Your task to perform on an android device: show emergency info Image 0: 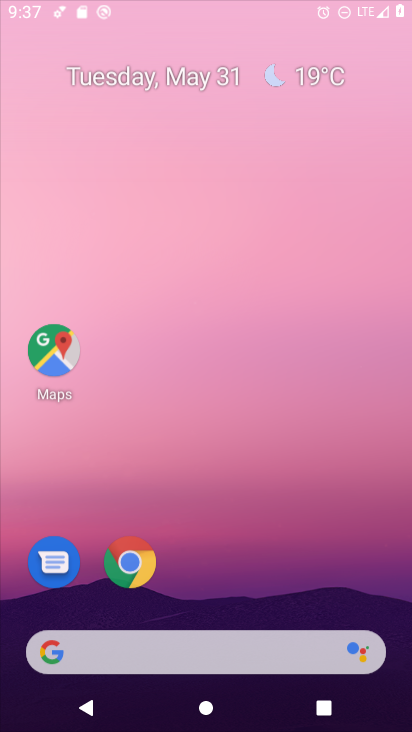
Step 0: drag from (233, 640) to (232, 282)
Your task to perform on an android device: show emergency info Image 1: 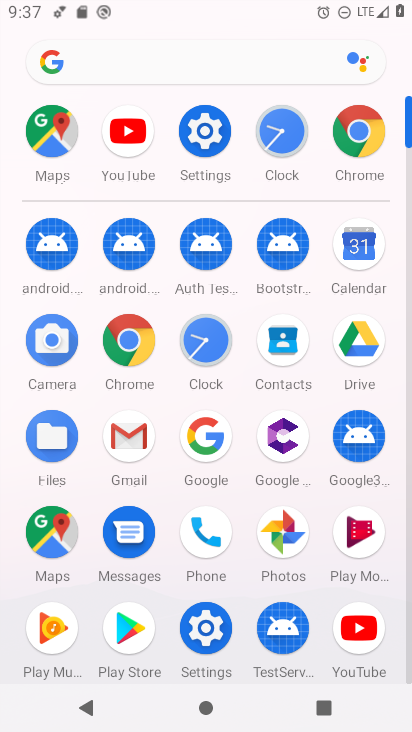
Step 1: click (203, 133)
Your task to perform on an android device: show emergency info Image 2: 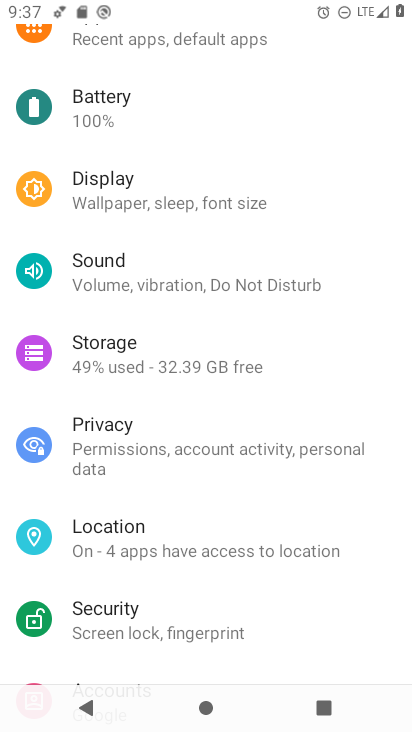
Step 2: drag from (218, 659) to (223, 378)
Your task to perform on an android device: show emergency info Image 3: 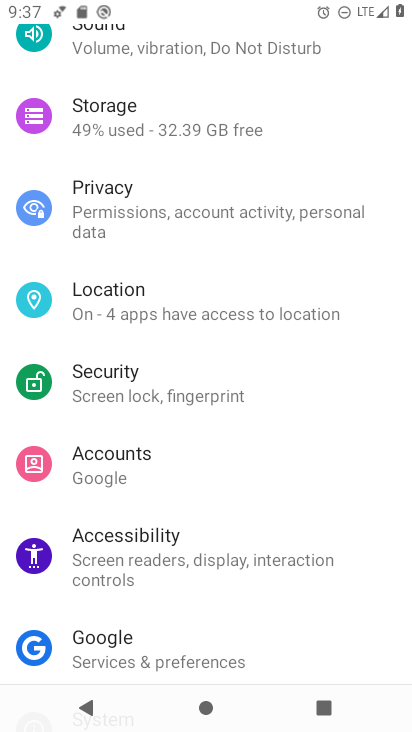
Step 3: click (161, 395)
Your task to perform on an android device: show emergency info Image 4: 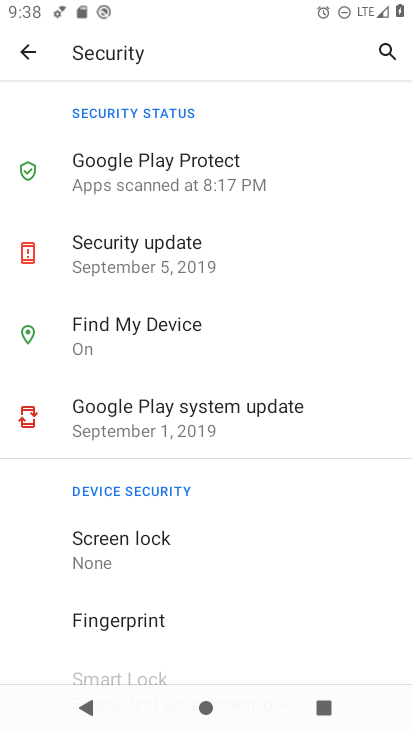
Step 4: press back button
Your task to perform on an android device: show emergency info Image 5: 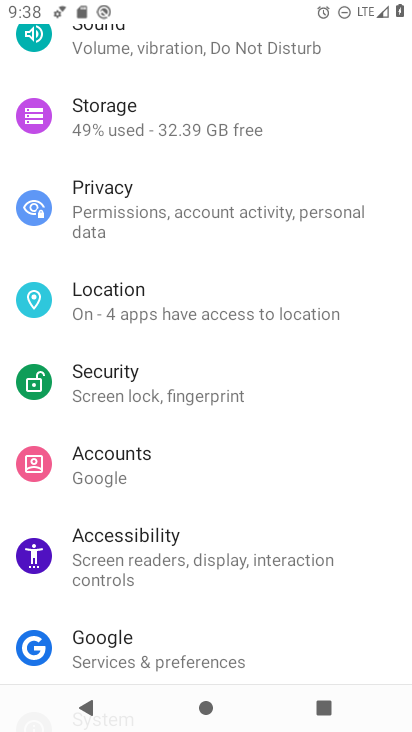
Step 5: drag from (222, 560) to (232, 297)
Your task to perform on an android device: show emergency info Image 6: 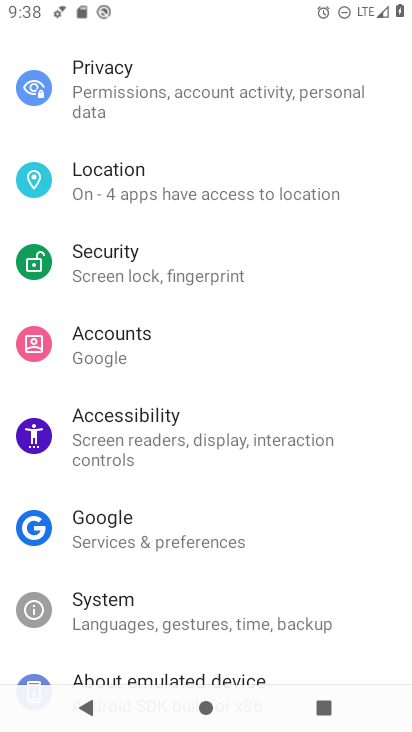
Step 6: click (204, 673)
Your task to perform on an android device: show emergency info Image 7: 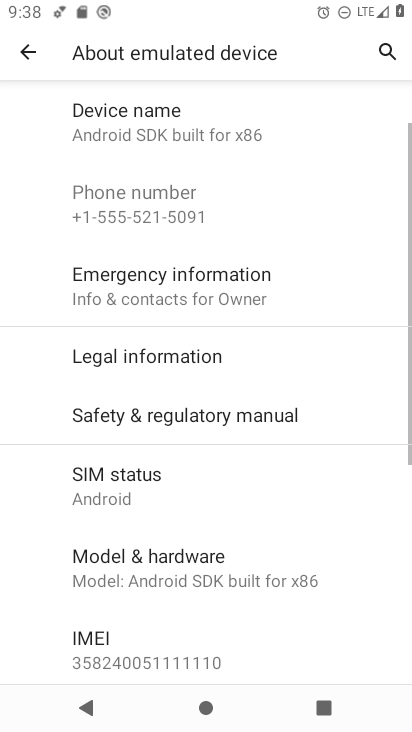
Step 7: click (132, 267)
Your task to perform on an android device: show emergency info Image 8: 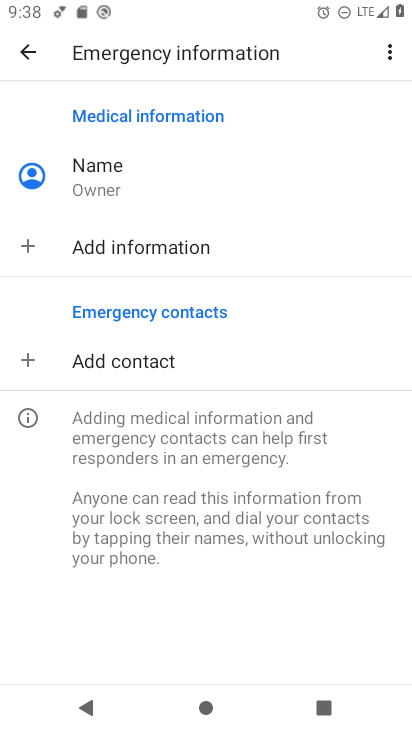
Step 8: task complete